Your task to perform on an android device: open a new tab in the chrome app Image 0: 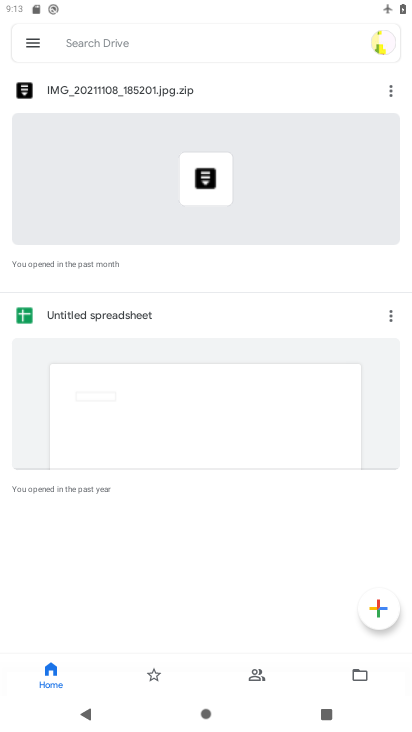
Step 0: press home button
Your task to perform on an android device: open a new tab in the chrome app Image 1: 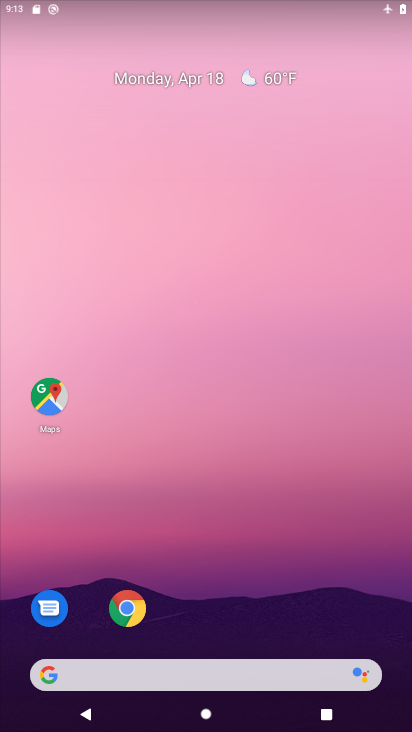
Step 1: click (130, 608)
Your task to perform on an android device: open a new tab in the chrome app Image 2: 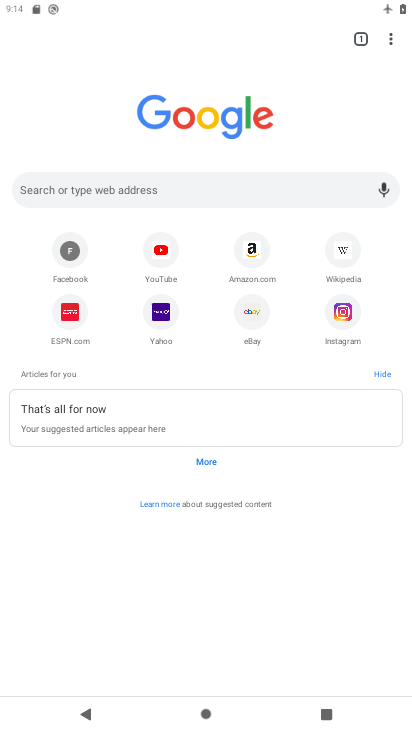
Step 2: click (357, 39)
Your task to perform on an android device: open a new tab in the chrome app Image 3: 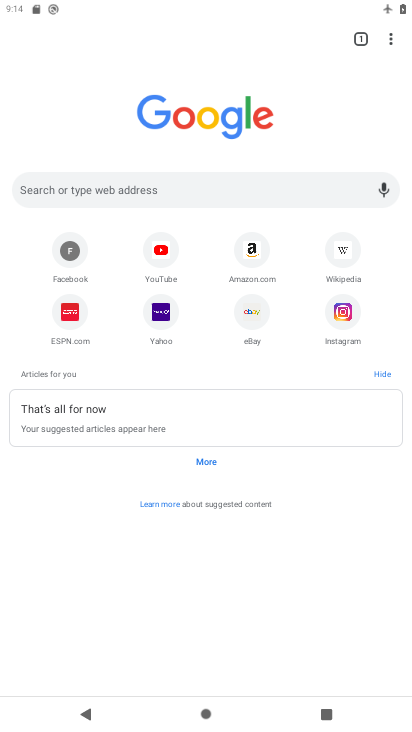
Step 3: click (361, 37)
Your task to perform on an android device: open a new tab in the chrome app Image 4: 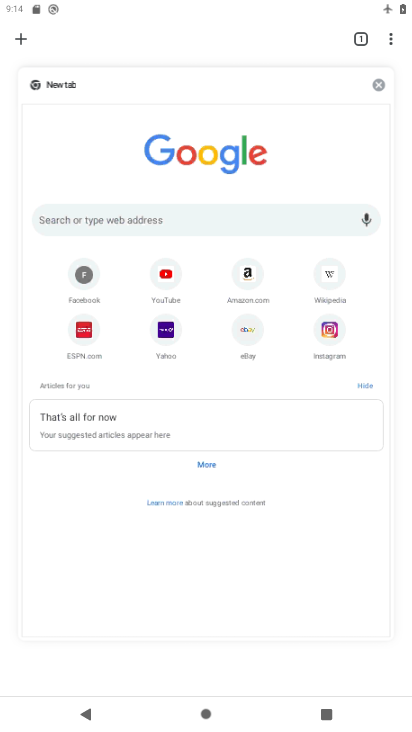
Step 4: click (25, 36)
Your task to perform on an android device: open a new tab in the chrome app Image 5: 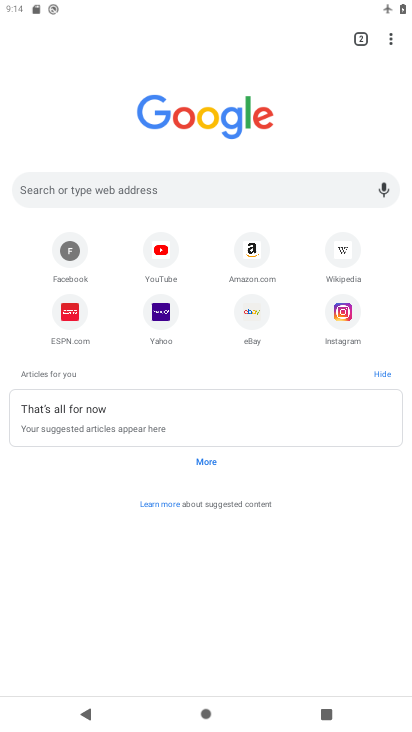
Step 5: task complete